Your task to perform on an android device: turn off airplane mode Image 0: 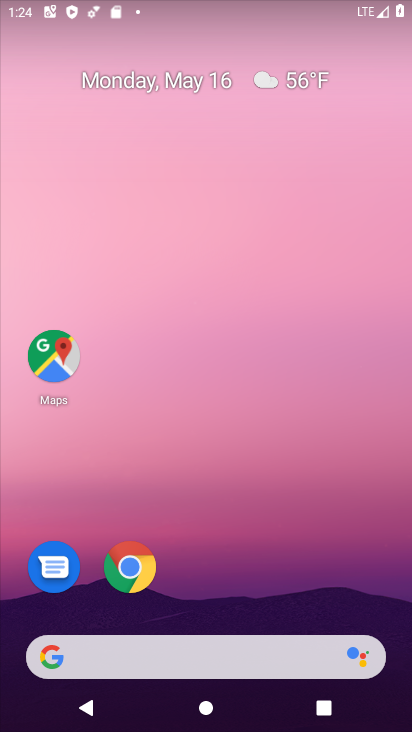
Step 0: drag from (213, 643) to (291, 155)
Your task to perform on an android device: turn off airplane mode Image 1: 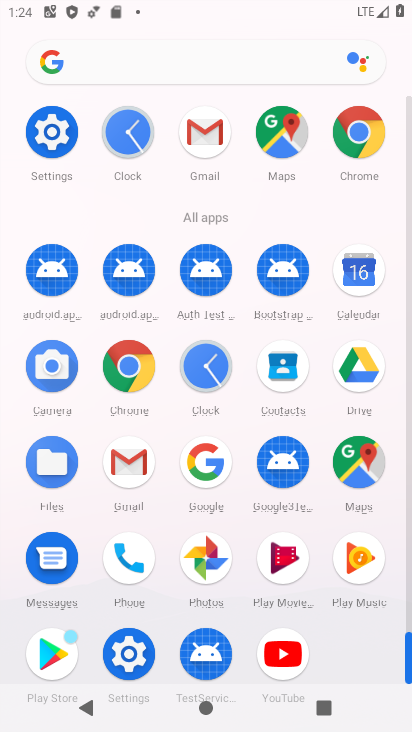
Step 1: click (130, 659)
Your task to perform on an android device: turn off airplane mode Image 2: 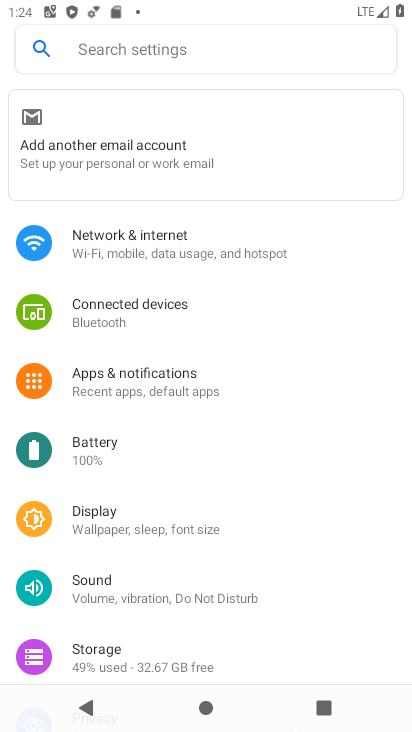
Step 2: click (210, 260)
Your task to perform on an android device: turn off airplane mode Image 3: 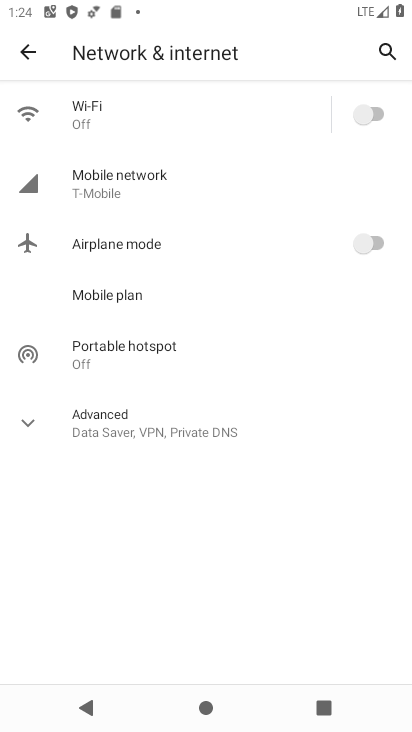
Step 3: task complete